Your task to perform on an android device: Find coffee shops on Maps Image 0: 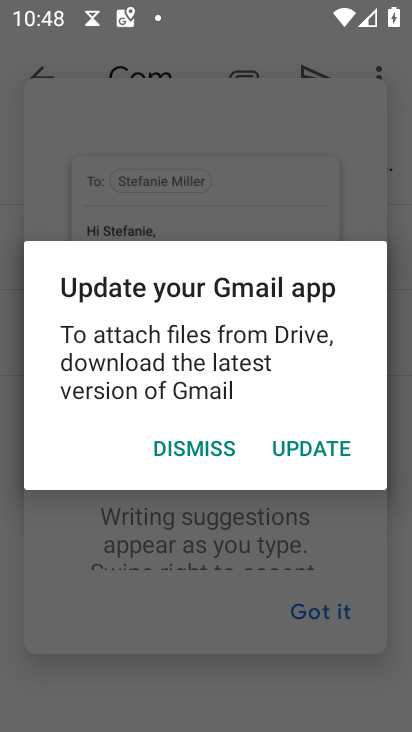
Step 0: press home button
Your task to perform on an android device: Find coffee shops on Maps Image 1: 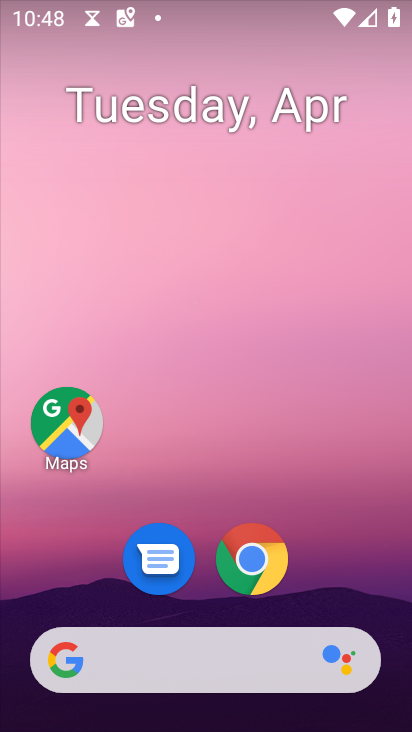
Step 1: click (69, 425)
Your task to perform on an android device: Find coffee shops on Maps Image 2: 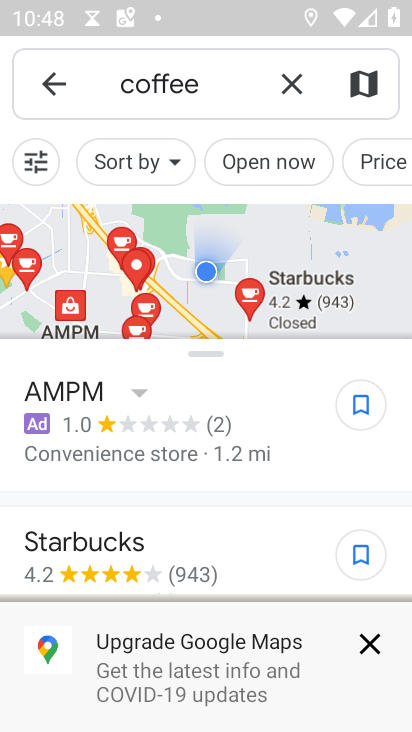
Step 2: click (291, 83)
Your task to perform on an android device: Find coffee shops on Maps Image 3: 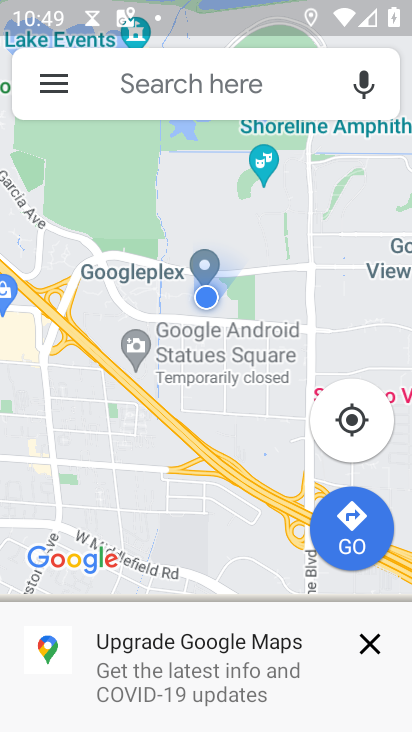
Step 3: click (253, 86)
Your task to perform on an android device: Find coffee shops on Maps Image 4: 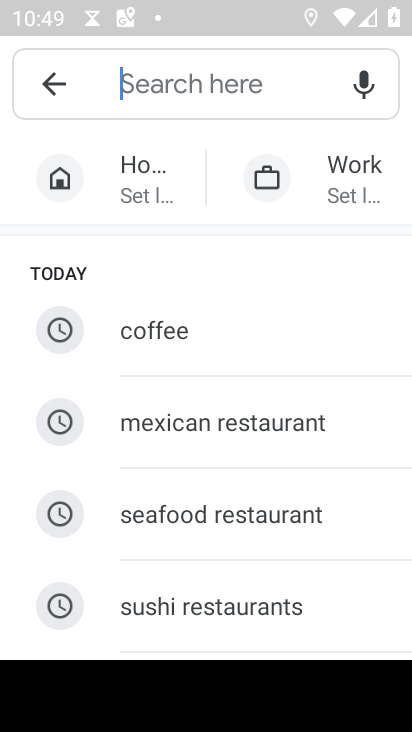
Step 4: type "coffee shops"
Your task to perform on an android device: Find coffee shops on Maps Image 5: 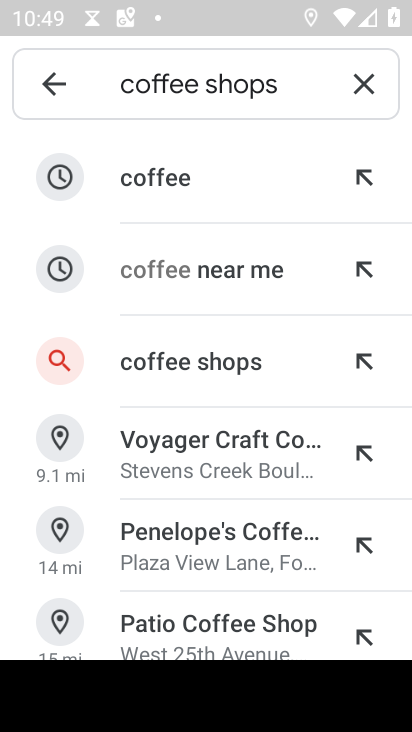
Step 5: click (197, 360)
Your task to perform on an android device: Find coffee shops on Maps Image 6: 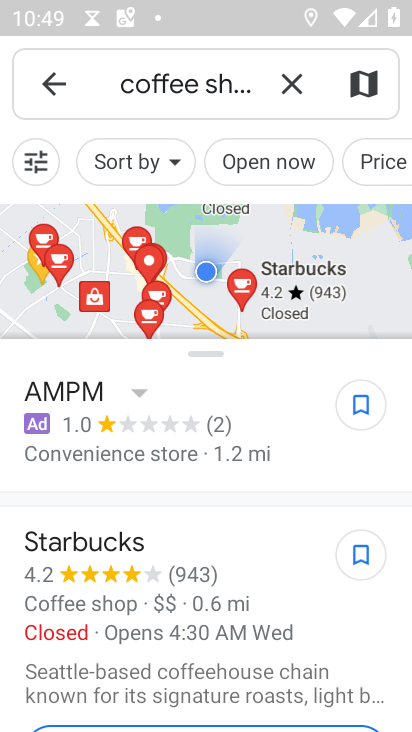
Step 6: task complete